Your task to perform on an android device: Open eBay Image 0: 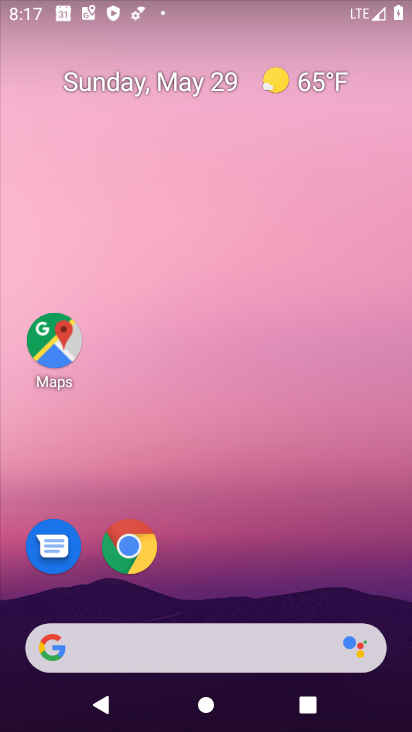
Step 0: click (183, 158)
Your task to perform on an android device: Open eBay Image 1: 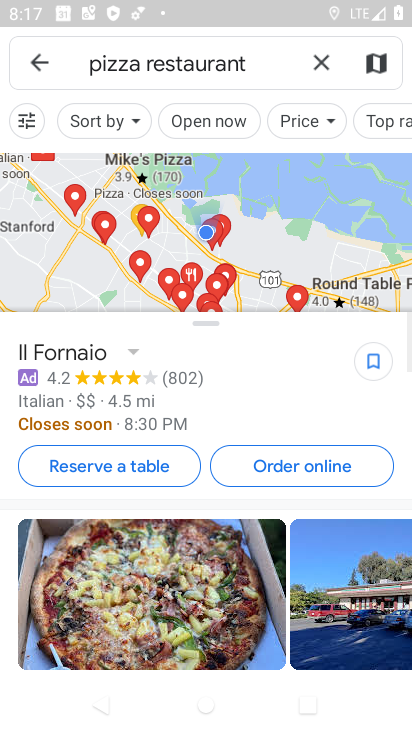
Step 1: press home button
Your task to perform on an android device: Open eBay Image 2: 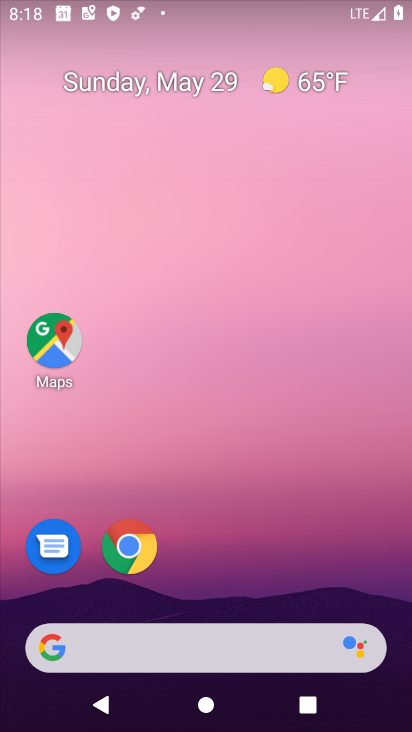
Step 2: click (132, 553)
Your task to perform on an android device: Open eBay Image 3: 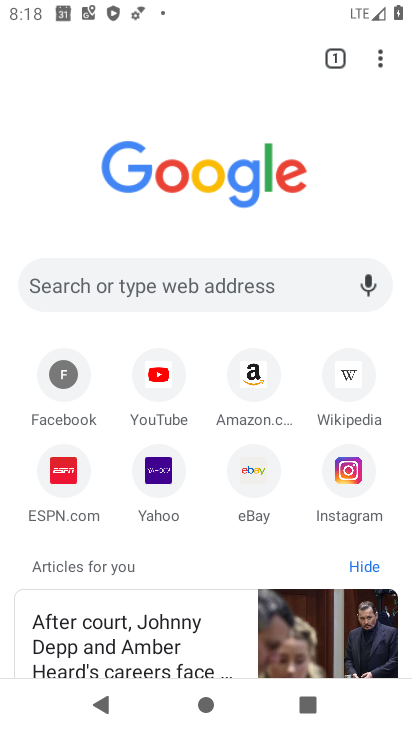
Step 3: click (242, 464)
Your task to perform on an android device: Open eBay Image 4: 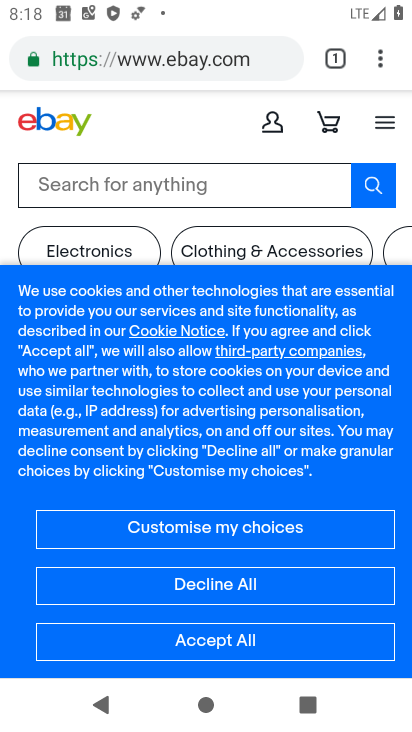
Step 4: task complete